Your task to perform on an android device: Go to sound settings Image 0: 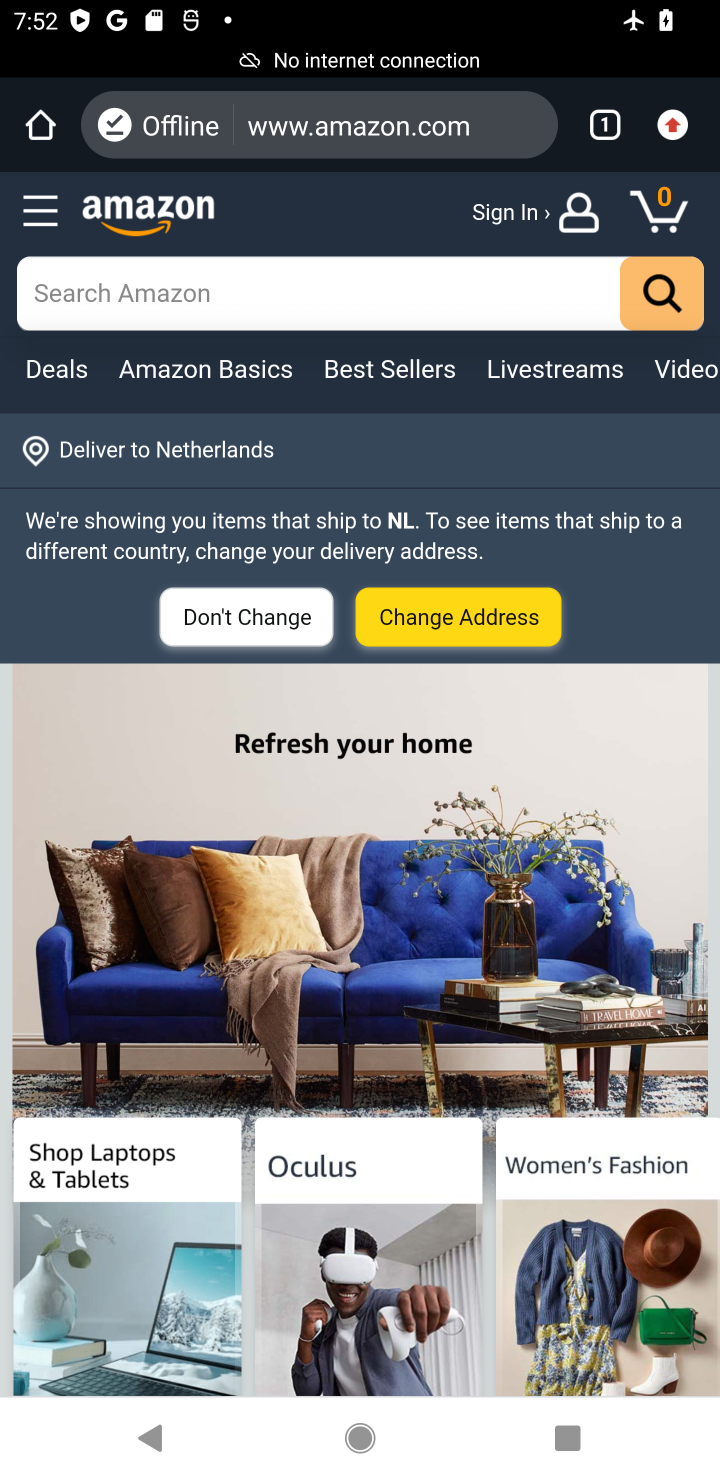
Step 0: press home button
Your task to perform on an android device: Go to sound settings Image 1: 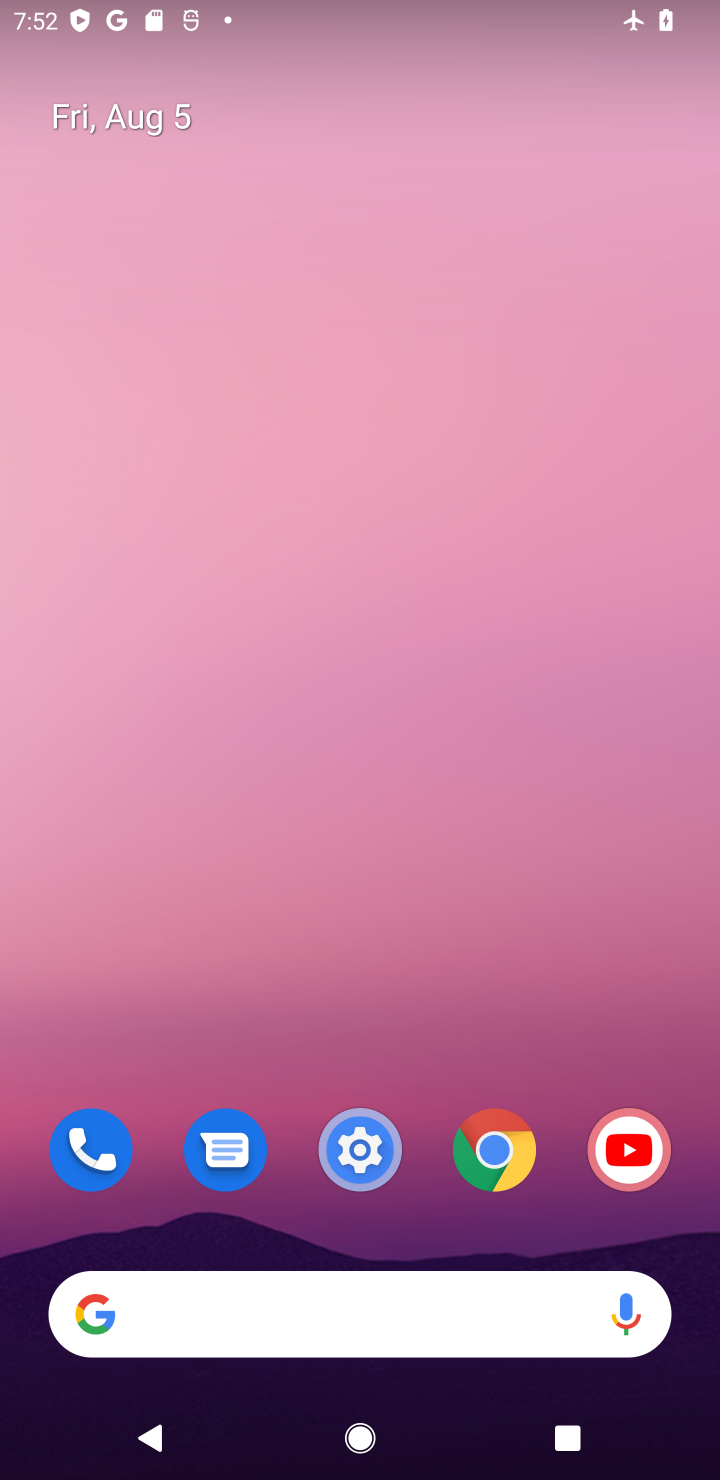
Step 1: drag from (428, 1051) to (500, 12)
Your task to perform on an android device: Go to sound settings Image 2: 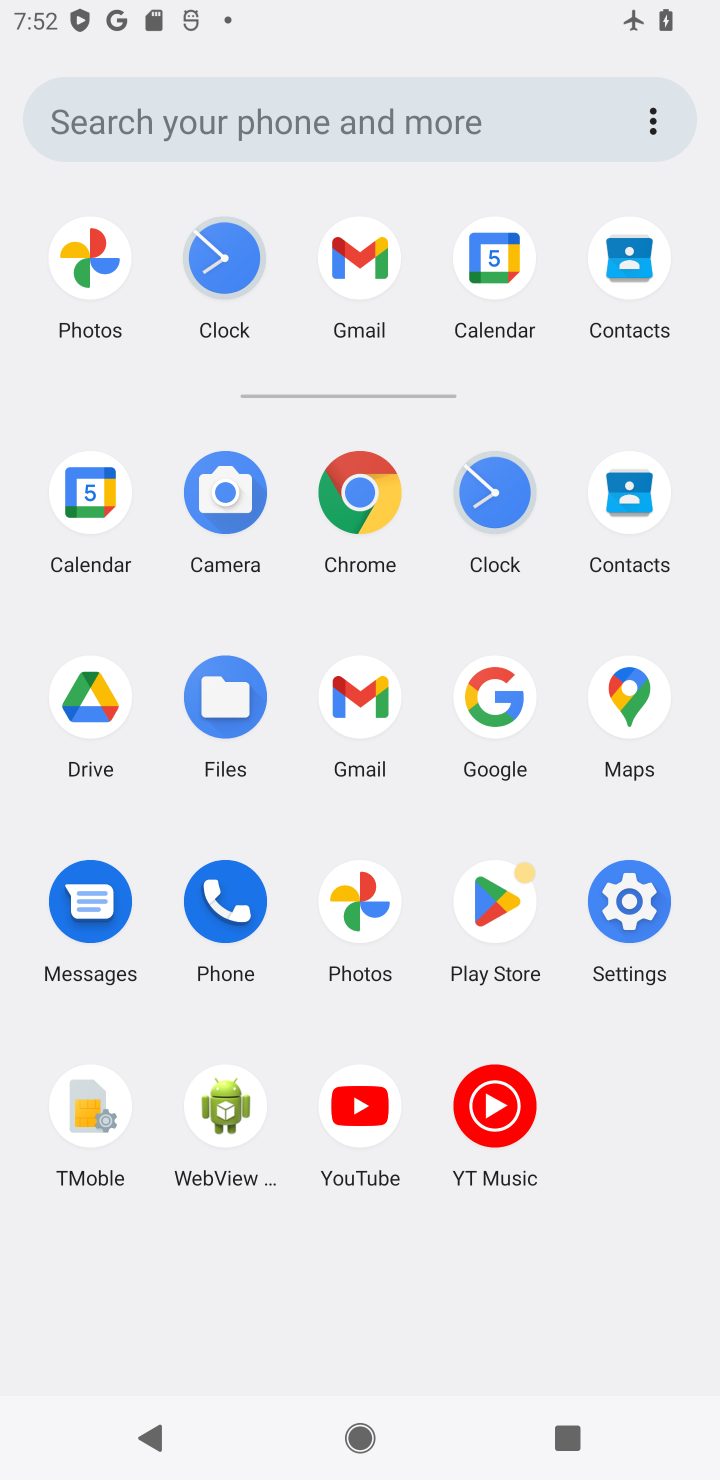
Step 2: click (620, 898)
Your task to perform on an android device: Go to sound settings Image 3: 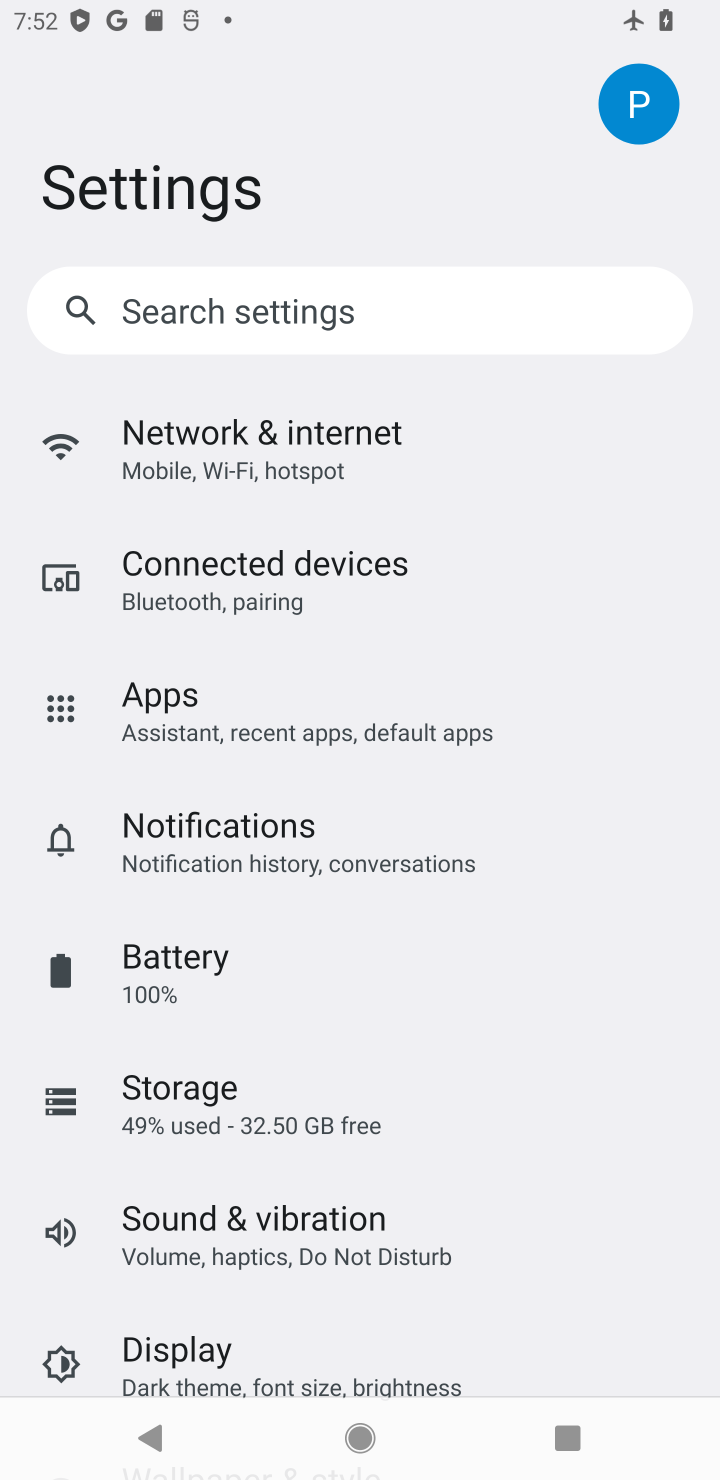
Step 3: drag from (546, 1044) to (567, 643)
Your task to perform on an android device: Go to sound settings Image 4: 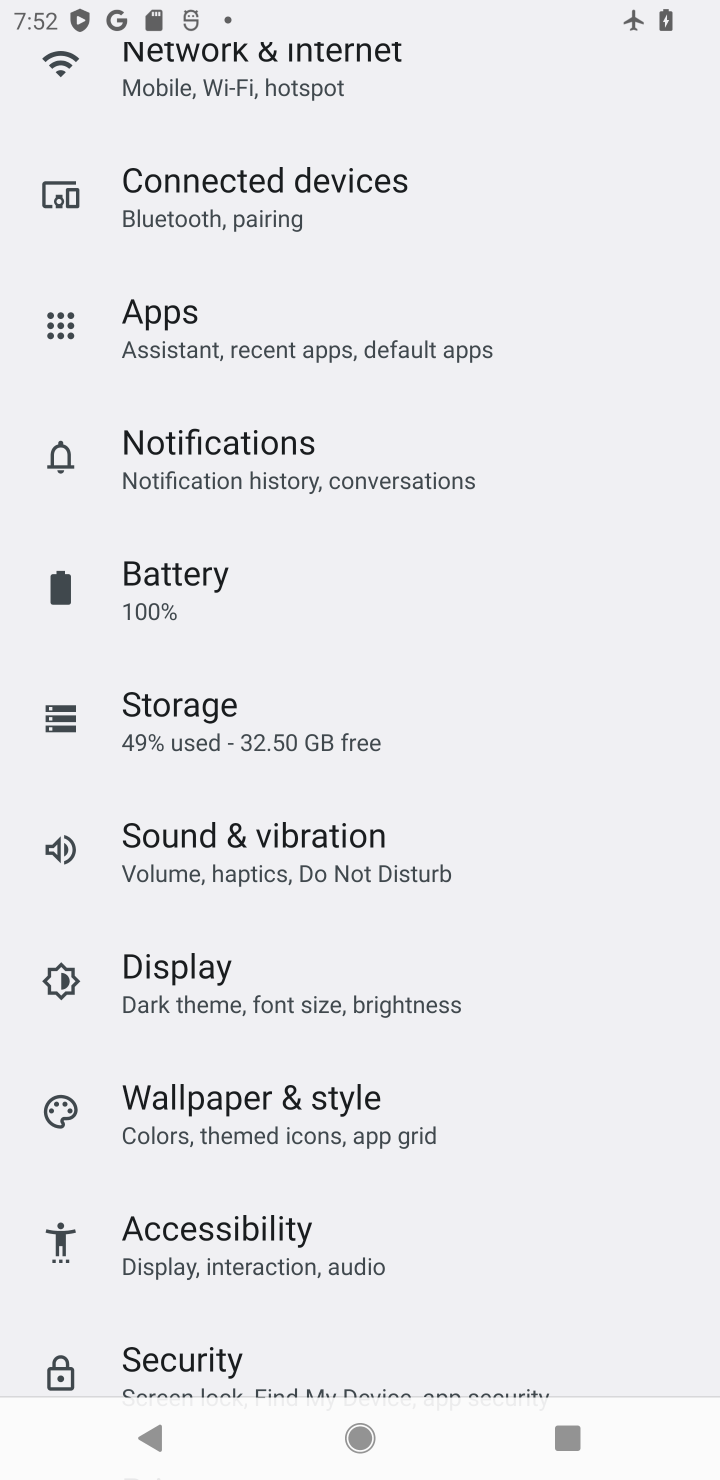
Step 4: click (343, 835)
Your task to perform on an android device: Go to sound settings Image 5: 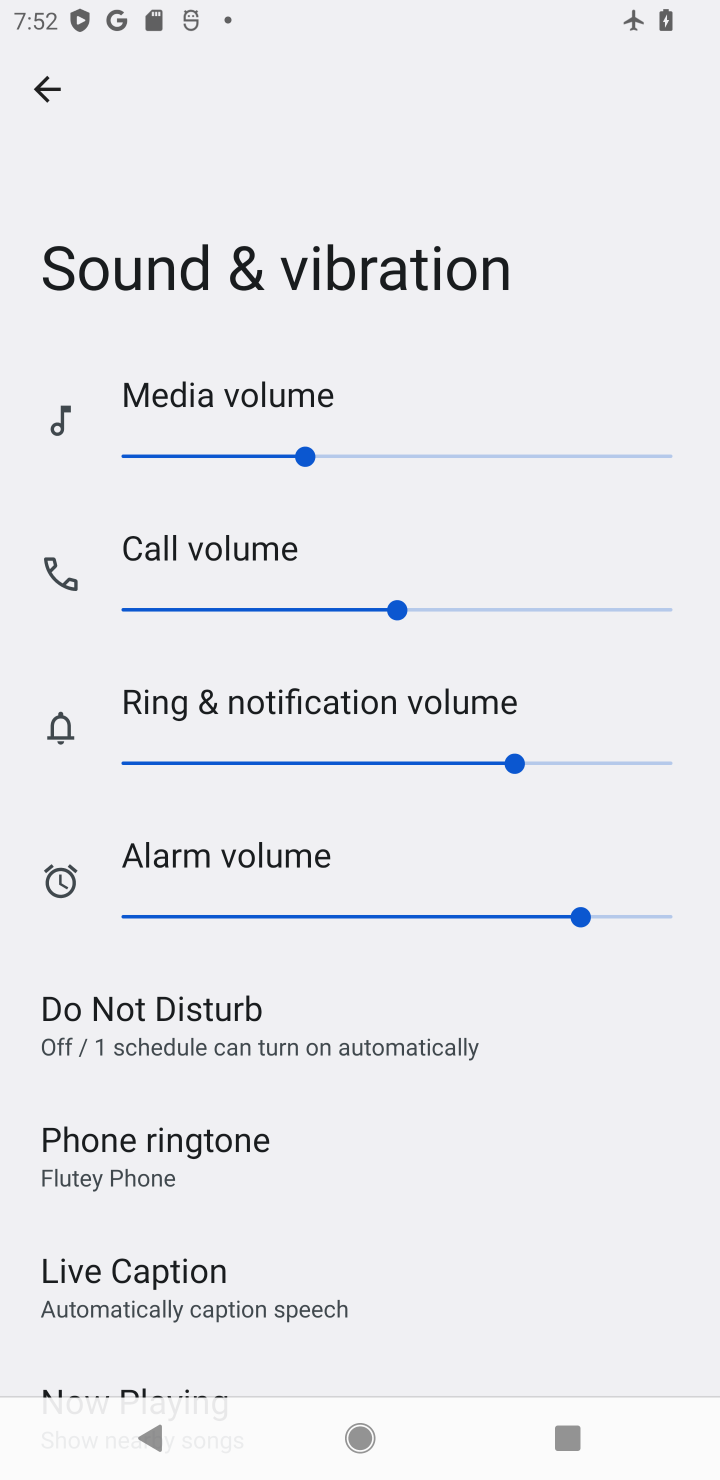
Step 5: task complete